Your task to perform on an android device: Show me popular games on the Play Store Image 0: 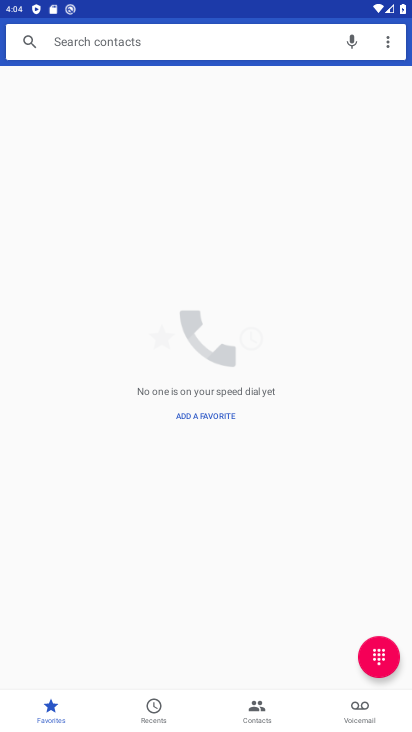
Step 0: press home button
Your task to perform on an android device: Show me popular games on the Play Store Image 1: 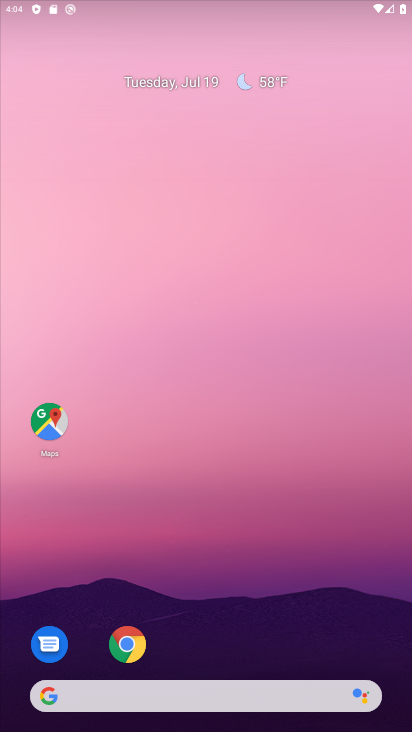
Step 1: drag from (264, 492) to (178, 124)
Your task to perform on an android device: Show me popular games on the Play Store Image 2: 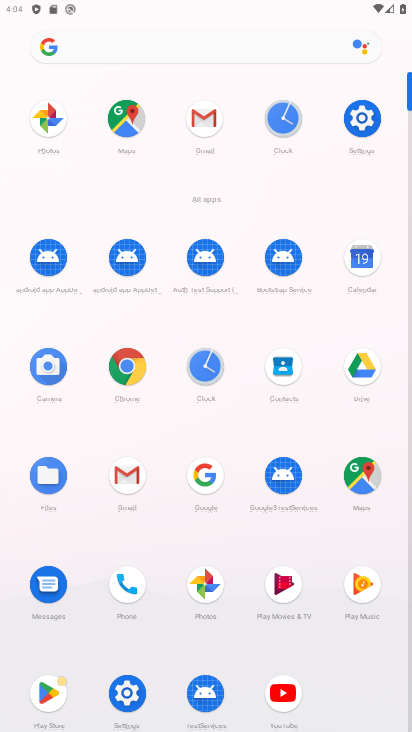
Step 2: click (45, 686)
Your task to perform on an android device: Show me popular games on the Play Store Image 3: 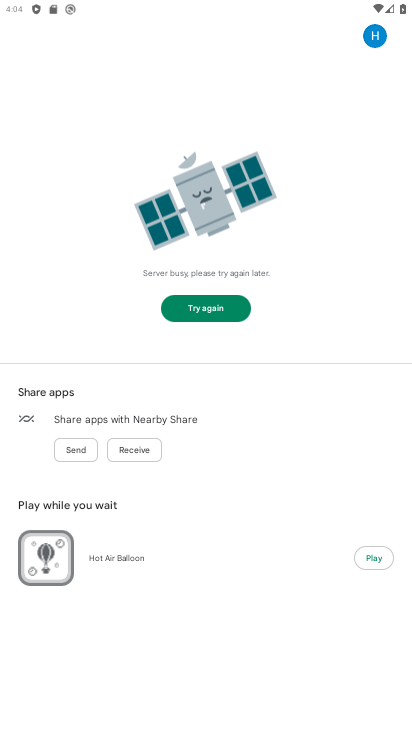
Step 3: task complete